Your task to perform on an android device: toggle location history Image 0: 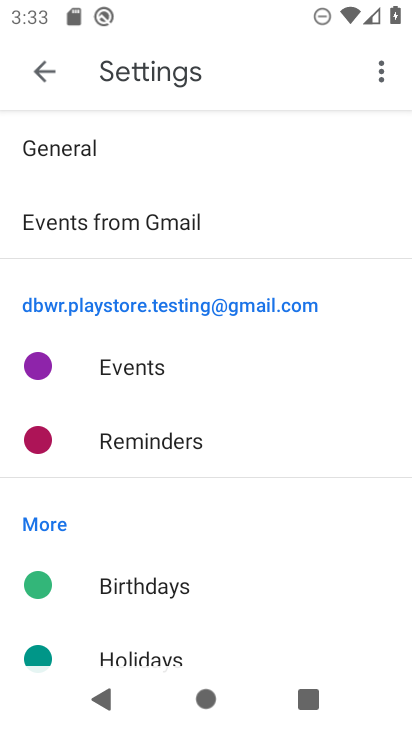
Step 0: press back button
Your task to perform on an android device: toggle location history Image 1: 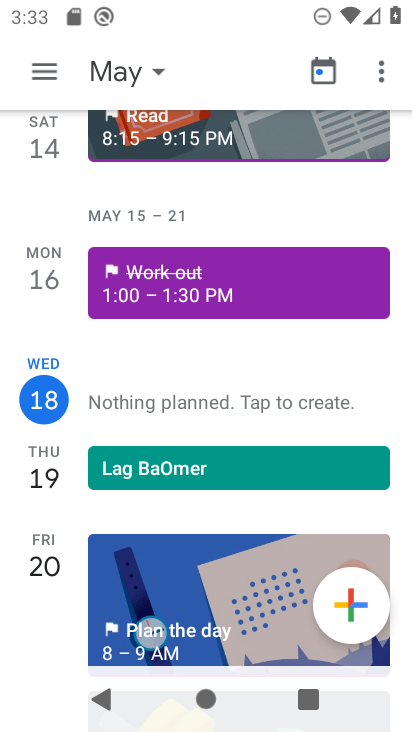
Step 1: press home button
Your task to perform on an android device: toggle location history Image 2: 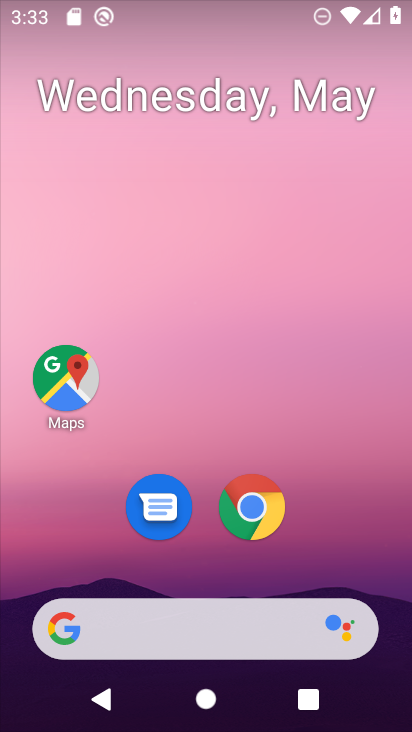
Step 2: drag from (151, 474) to (207, 75)
Your task to perform on an android device: toggle location history Image 3: 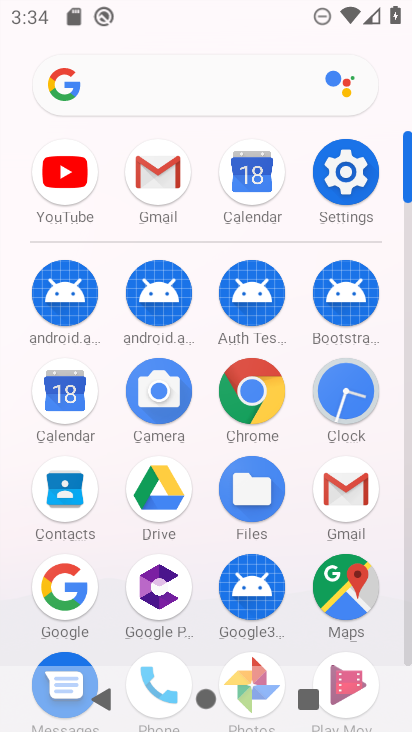
Step 3: click (343, 151)
Your task to perform on an android device: toggle location history Image 4: 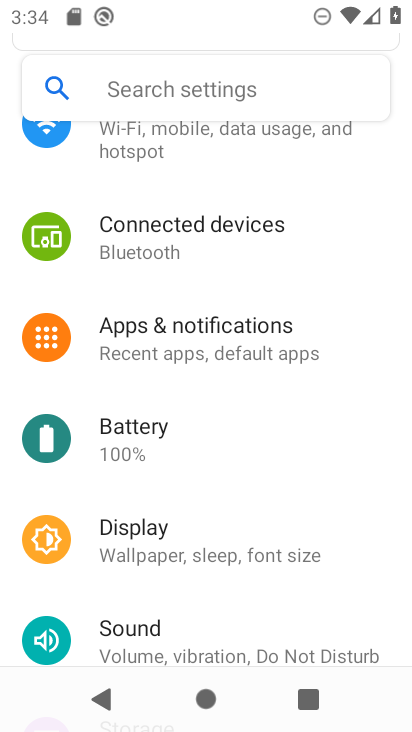
Step 4: drag from (180, 575) to (269, 73)
Your task to perform on an android device: toggle location history Image 5: 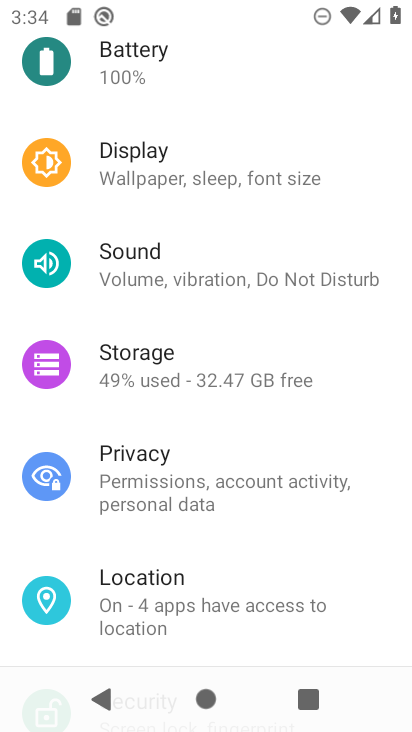
Step 5: click (152, 620)
Your task to perform on an android device: toggle location history Image 6: 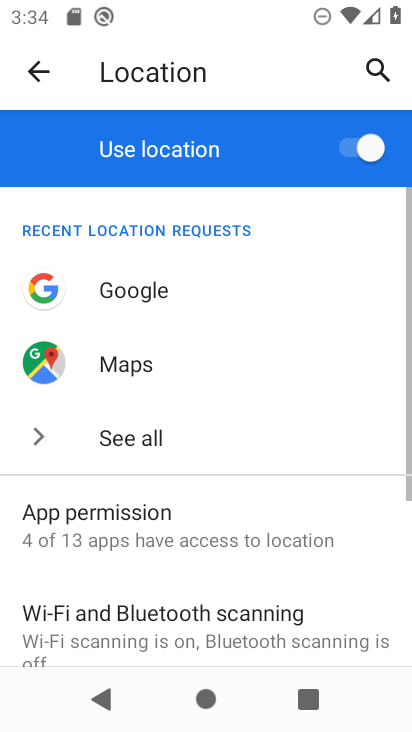
Step 6: drag from (171, 578) to (240, 93)
Your task to perform on an android device: toggle location history Image 7: 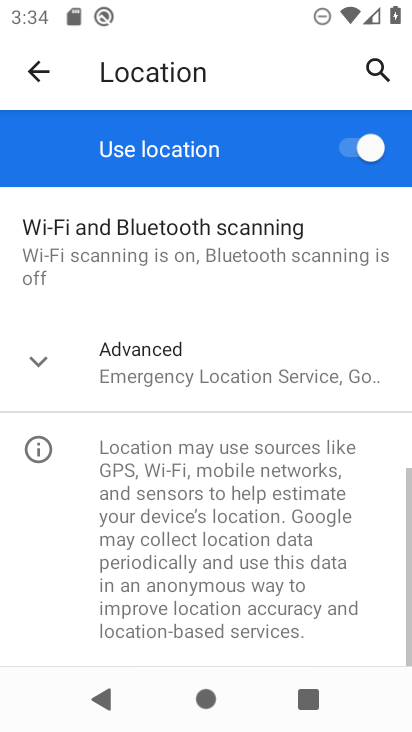
Step 7: click (140, 419)
Your task to perform on an android device: toggle location history Image 8: 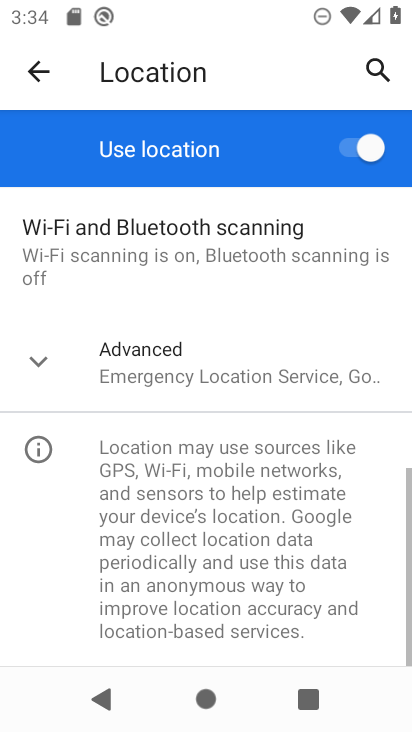
Step 8: click (139, 374)
Your task to perform on an android device: toggle location history Image 9: 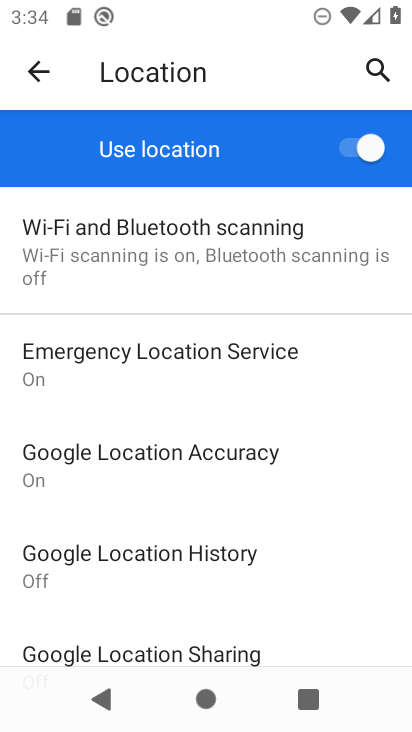
Step 9: click (144, 562)
Your task to perform on an android device: toggle location history Image 10: 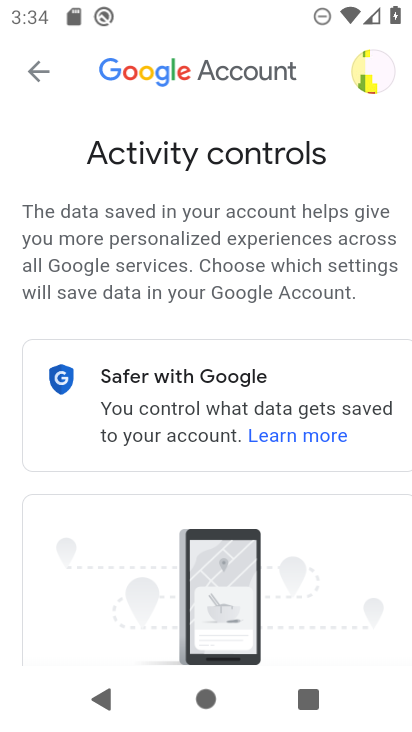
Step 10: drag from (210, 434) to (233, 187)
Your task to perform on an android device: toggle location history Image 11: 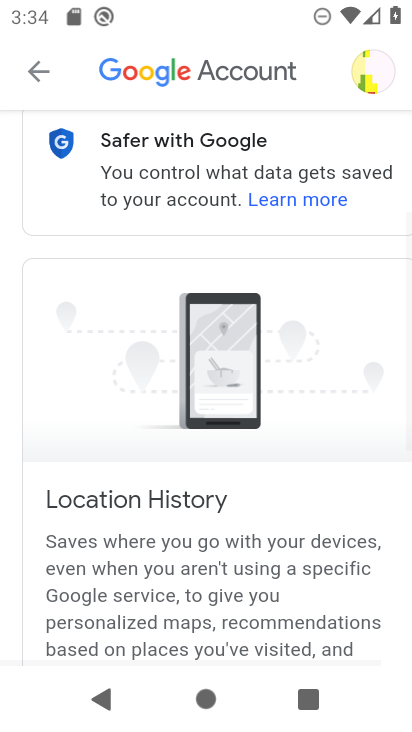
Step 11: drag from (221, 576) to (206, 70)
Your task to perform on an android device: toggle location history Image 12: 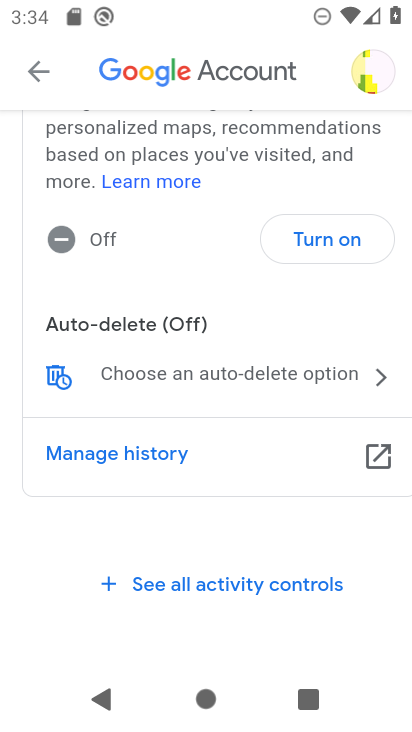
Step 12: click (307, 236)
Your task to perform on an android device: toggle location history Image 13: 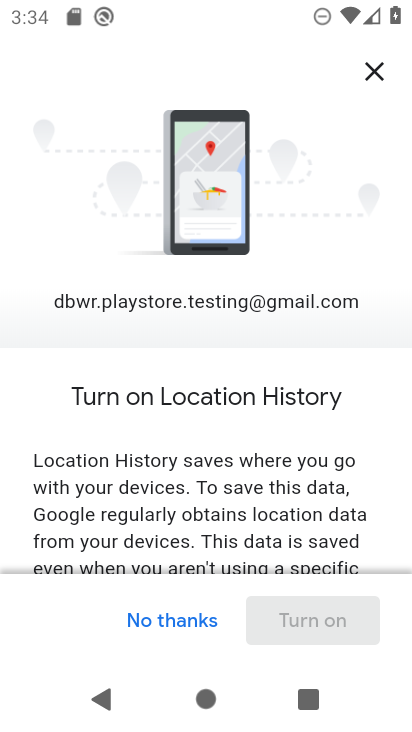
Step 13: drag from (187, 544) to (266, 113)
Your task to perform on an android device: toggle location history Image 14: 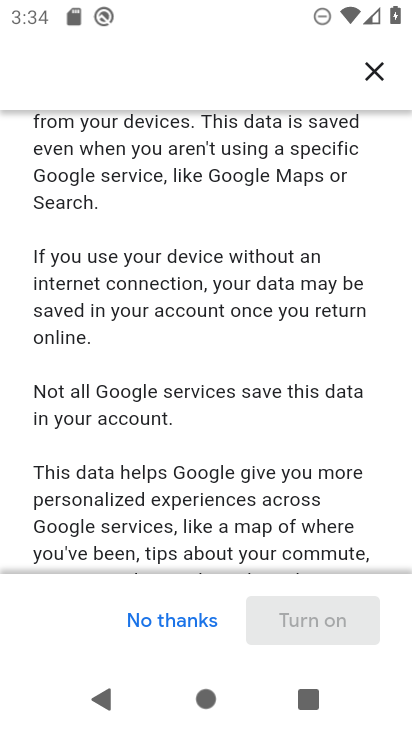
Step 14: drag from (294, 517) to (353, 0)
Your task to perform on an android device: toggle location history Image 15: 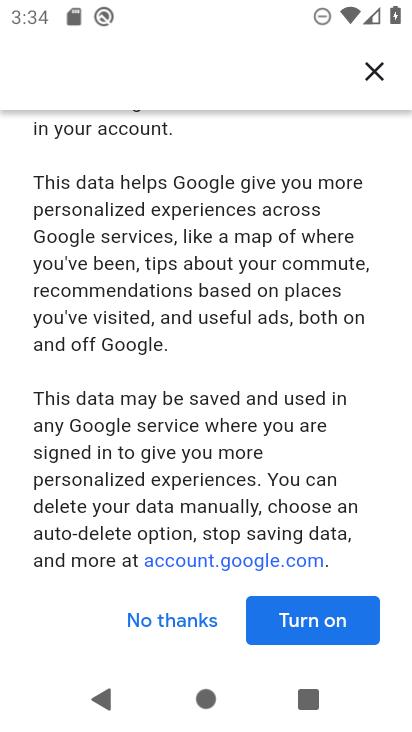
Step 15: click (299, 630)
Your task to perform on an android device: toggle location history Image 16: 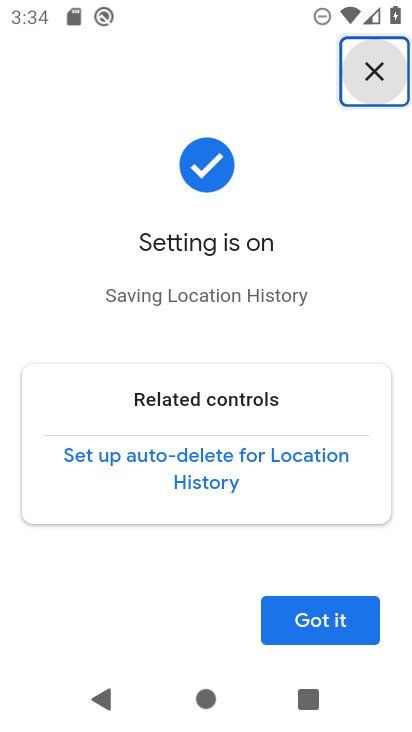
Step 16: task complete